Your task to perform on an android device: Open Google Chrome and click the shortcut for Amazon.com Image 0: 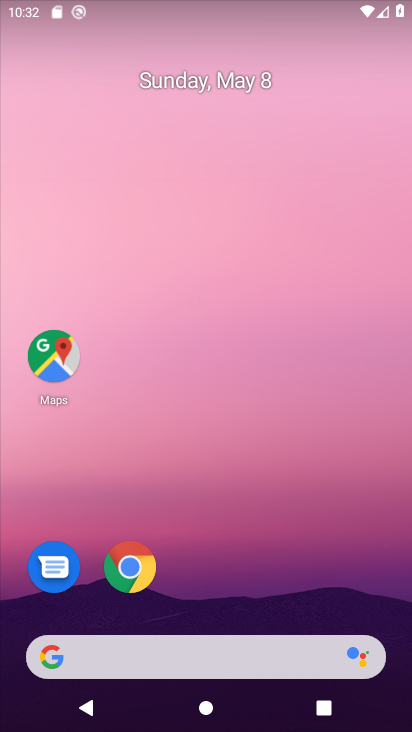
Step 0: click (259, 39)
Your task to perform on an android device: Open Google Chrome and click the shortcut for Amazon.com Image 1: 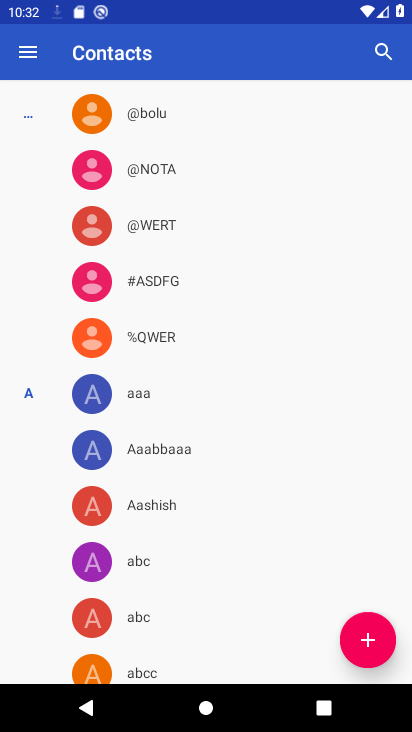
Step 1: press home button
Your task to perform on an android device: Open Google Chrome and click the shortcut for Amazon.com Image 2: 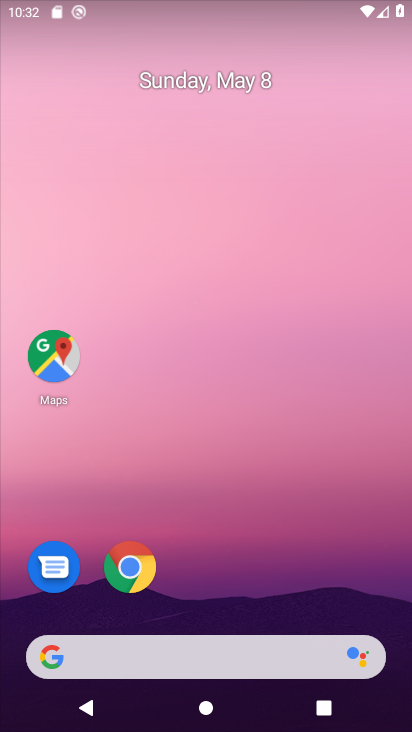
Step 2: click (134, 585)
Your task to perform on an android device: Open Google Chrome and click the shortcut for Amazon.com Image 3: 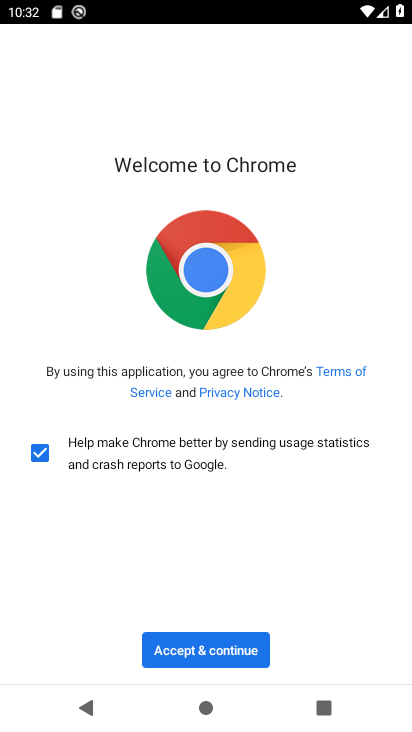
Step 3: click (215, 658)
Your task to perform on an android device: Open Google Chrome and click the shortcut for Amazon.com Image 4: 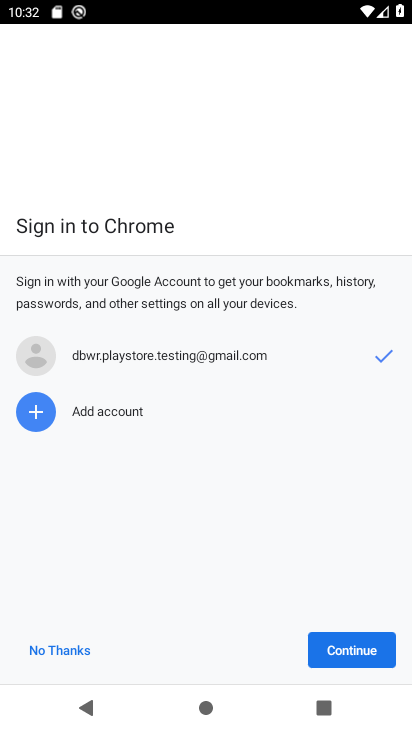
Step 4: click (352, 649)
Your task to perform on an android device: Open Google Chrome and click the shortcut for Amazon.com Image 5: 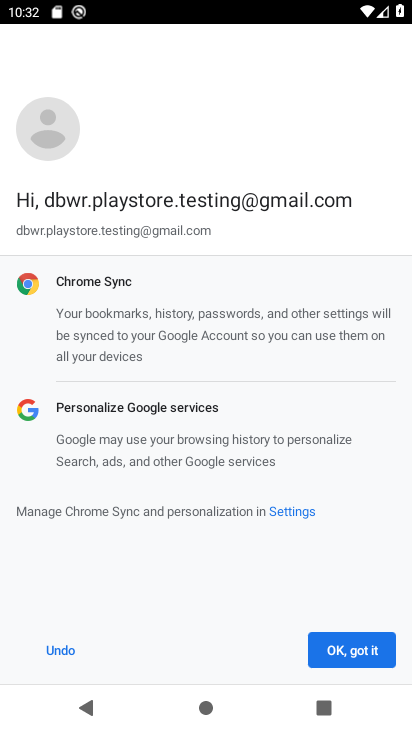
Step 5: click (352, 649)
Your task to perform on an android device: Open Google Chrome and click the shortcut for Amazon.com Image 6: 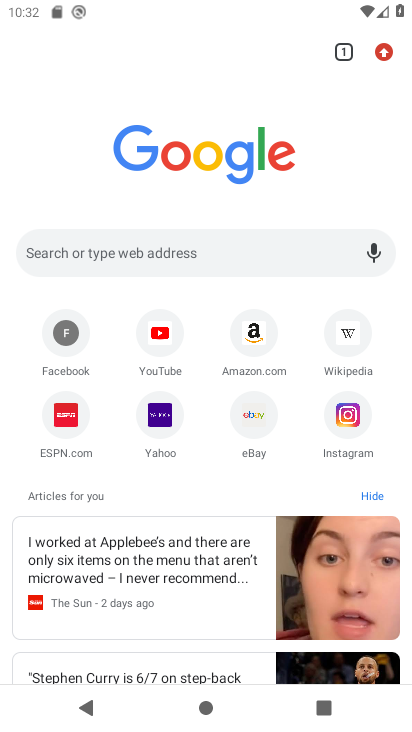
Step 6: click (248, 356)
Your task to perform on an android device: Open Google Chrome and click the shortcut for Amazon.com Image 7: 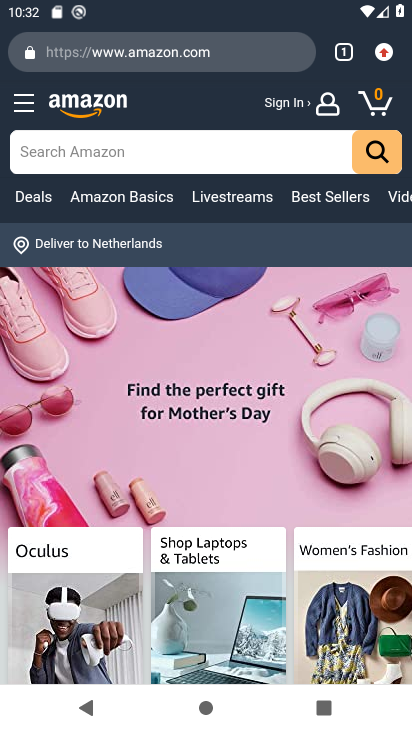
Step 7: task complete